Your task to perform on an android device: Open CNN.com Image 0: 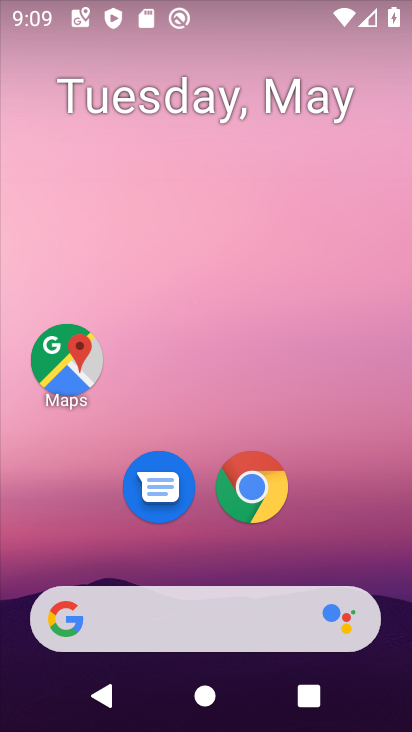
Step 0: drag from (382, 564) to (383, 257)
Your task to perform on an android device: Open CNN.com Image 1: 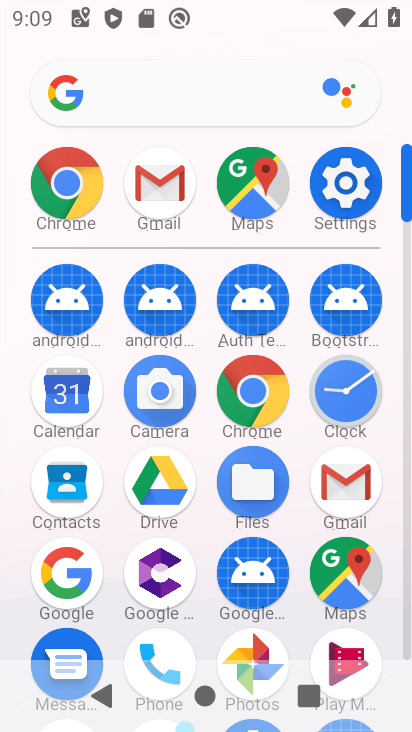
Step 1: click (252, 412)
Your task to perform on an android device: Open CNN.com Image 2: 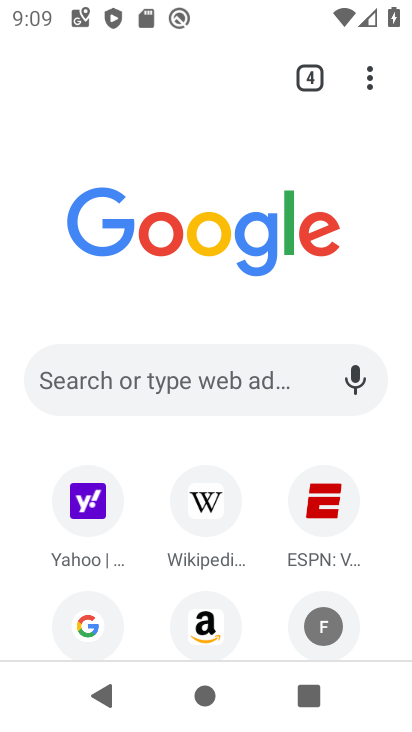
Step 2: click (253, 387)
Your task to perform on an android device: Open CNN.com Image 3: 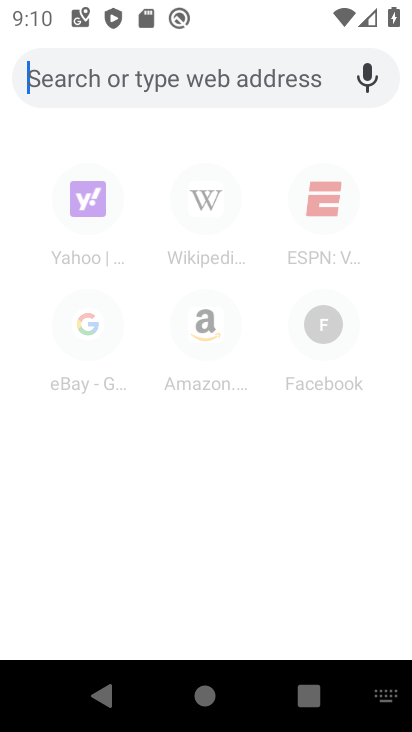
Step 3: type "cnn.com"
Your task to perform on an android device: Open CNN.com Image 4: 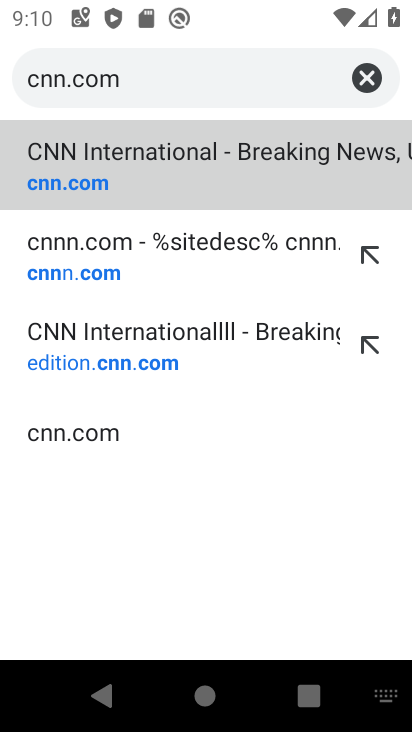
Step 4: click (242, 178)
Your task to perform on an android device: Open CNN.com Image 5: 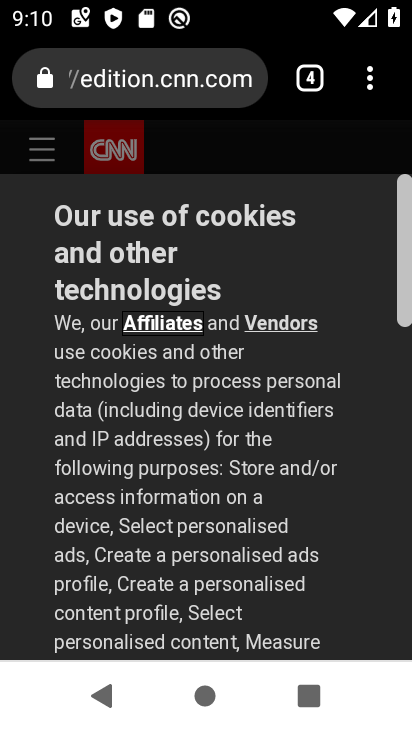
Step 5: task complete